Your task to perform on an android device: Open maps Image 0: 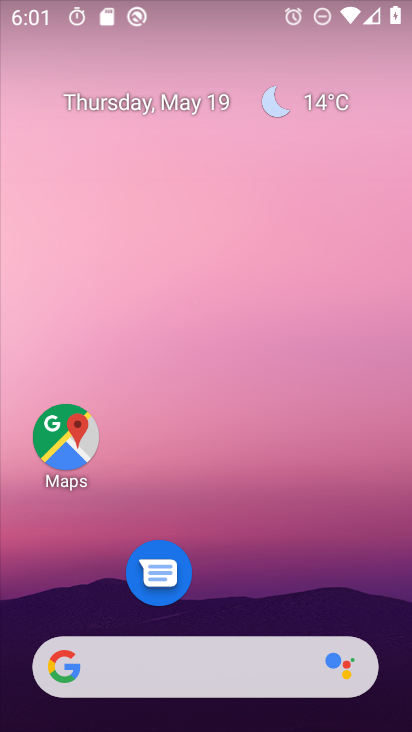
Step 0: click (69, 439)
Your task to perform on an android device: Open maps Image 1: 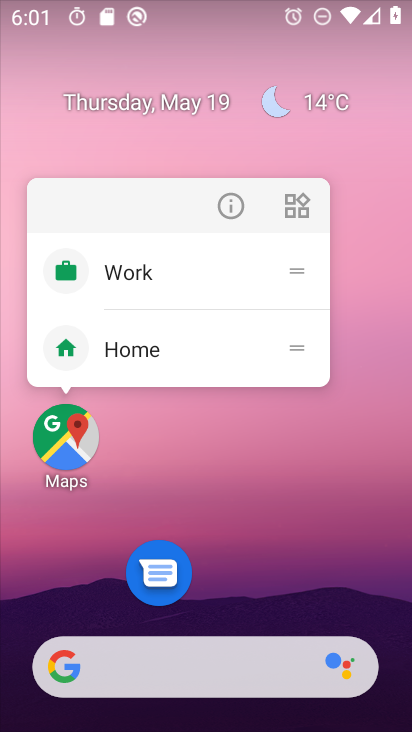
Step 1: click (69, 446)
Your task to perform on an android device: Open maps Image 2: 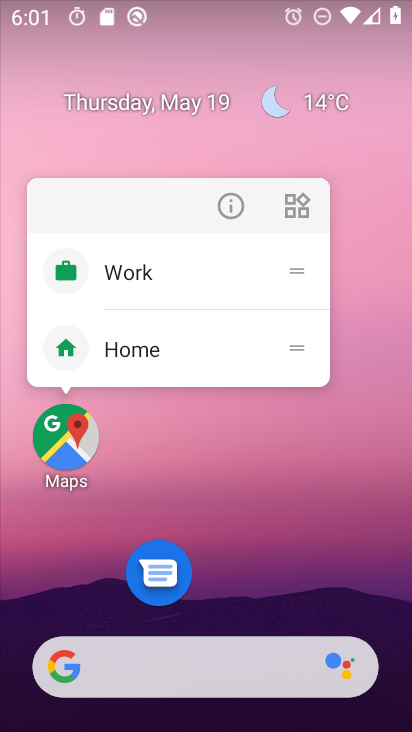
Step 2: click (66, 443)
Your task to perform on an android device: Open maps Image 3: 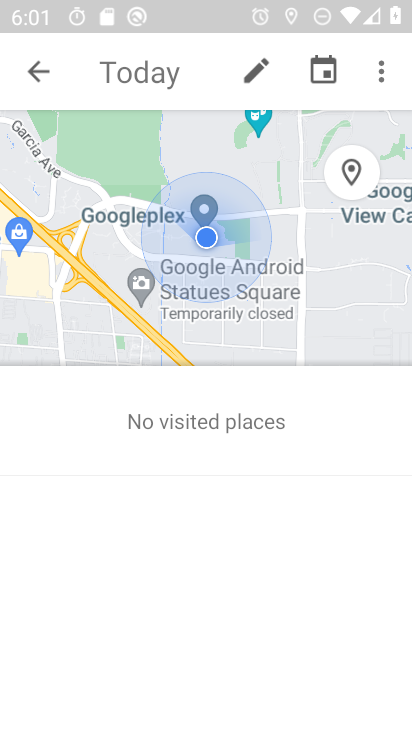
Step 3: task complete